Your task to perform on an android device: show emergency info Image 0: 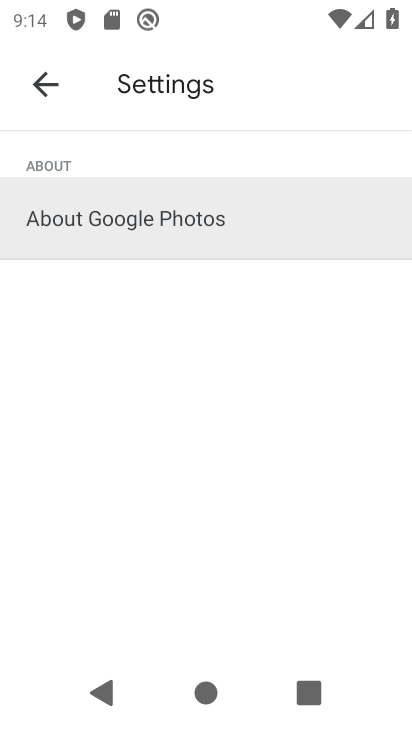
Step 0: press home button
Your task to perform on an android device: show emergency info Image 1: 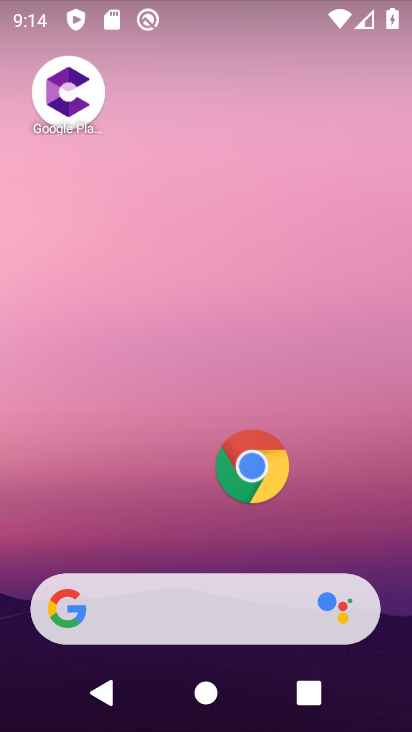
Step 1: drag from (168, 544) to (224, 12)
Your task to perform on an android device: show emergency info Image 2: 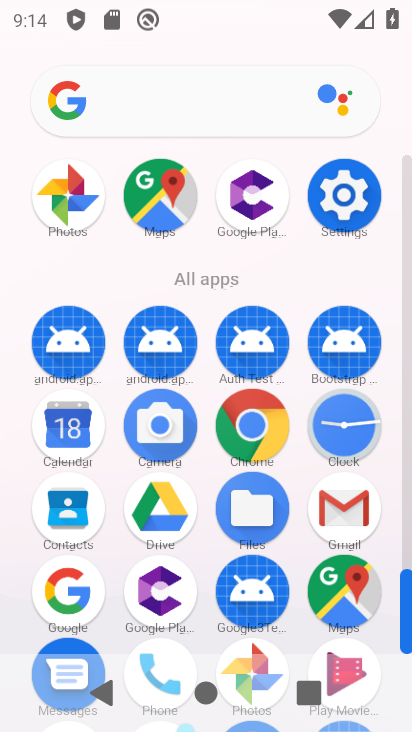
Step 2: drag from (202, 533) to (216, 176)
Your task to perform on an android device: show emergency info Image 3: 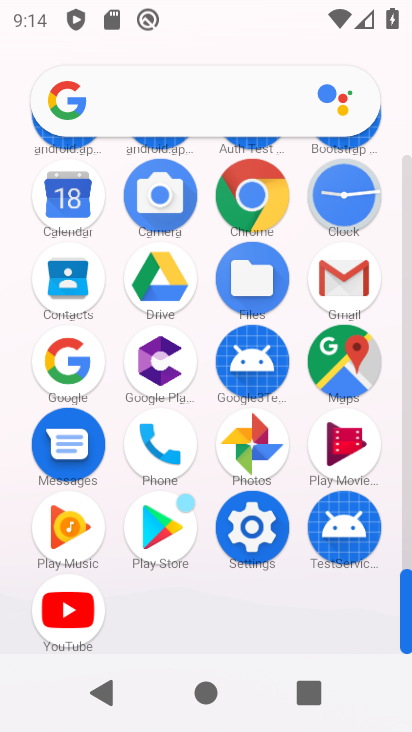
Step 3: click (256, 541)
Your task to perform on an android device: show emergency info Image 4: 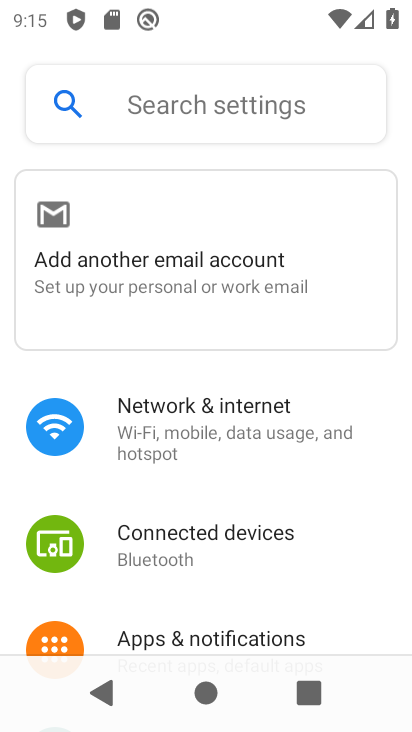
Step 4: drag from (198, 585) to (228, 45)
Your task to perform on an android device: show emergency info Image 5: 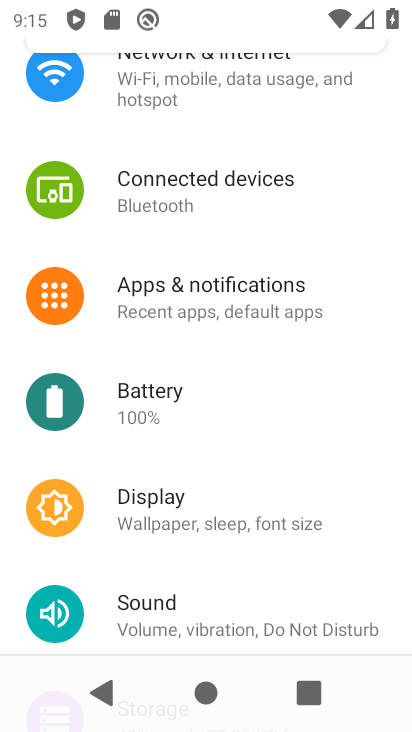
Step 5: drag from (181, 585) to (227, 207)
Your task to perform on an android device: show emergency info Image 6: 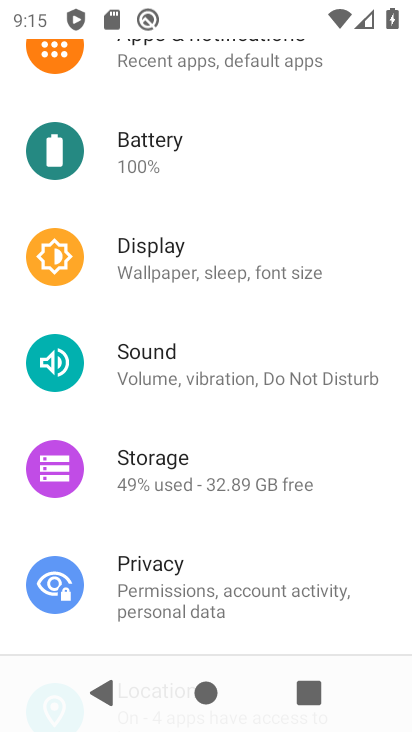
Step 6: drag from (182, 558) to (247, 124)
Your task to perform on an android device: show emergency info Image 7: 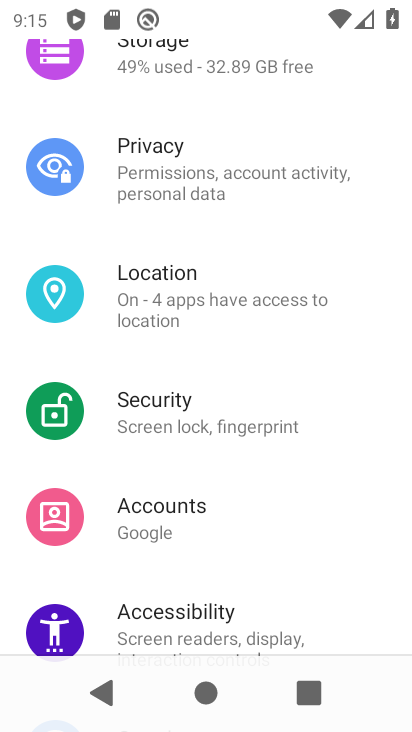
Step 7: drag from (175, 599) to (230, 145)
Your task to perform on an android device: show emergency info Image 8: 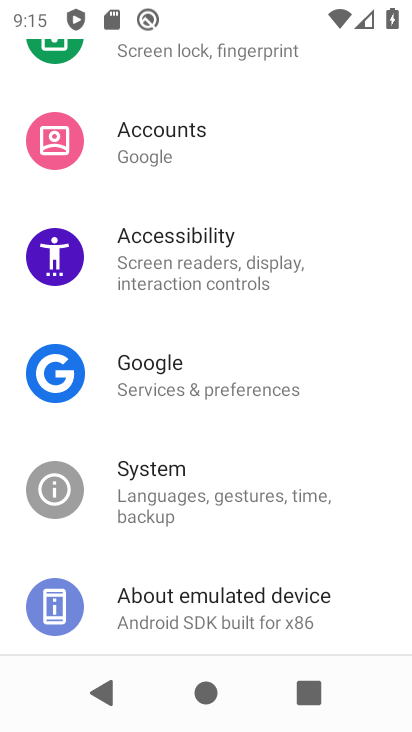
Step 8: click (167, 617)
Your task to perform on an android device: show emergency info Image 9: 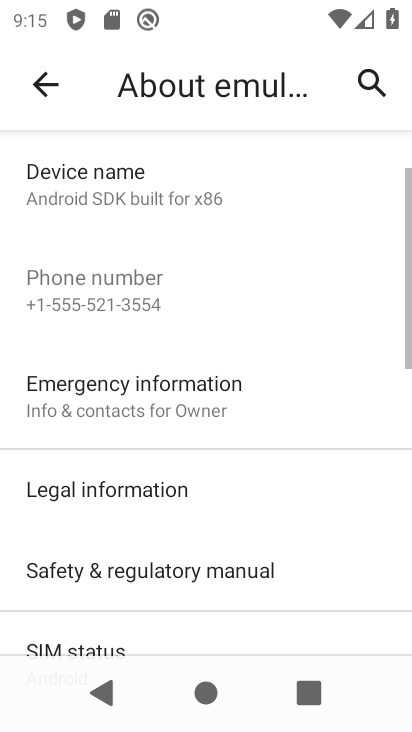
Step 9: click (140, 405)
Your task to perform on an android device: show emergency info Image 10: 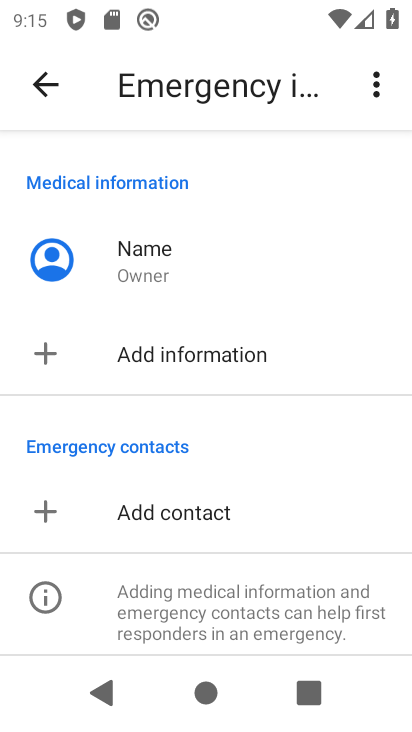
Step 10: task complete